Your task to perform on an android device: Open Chrome and go to the settings page Image 0: 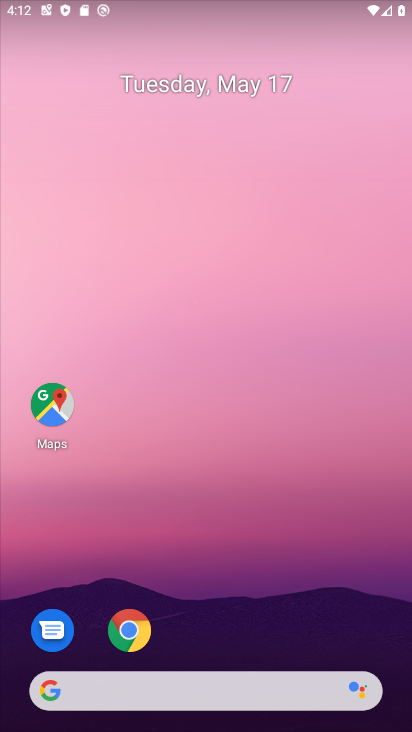
Step 0: click (131, 631)
Your task to perform on an android device: Open Chrome and go to the settings page Image 1: 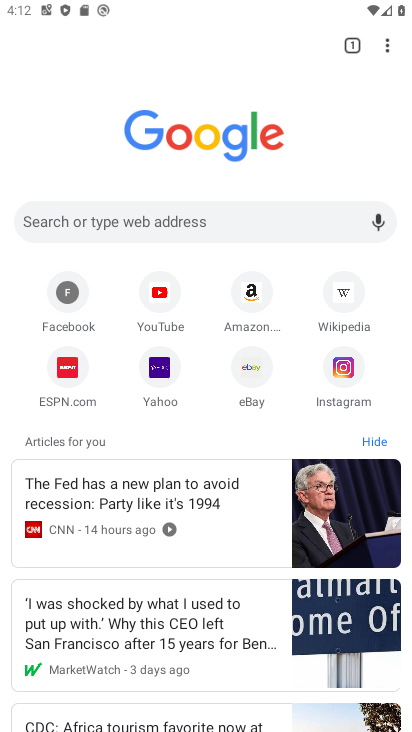
Step 1: click (389, 48)
Your task to perform on an android device: Open Chrome and go to the settings page Image 2: 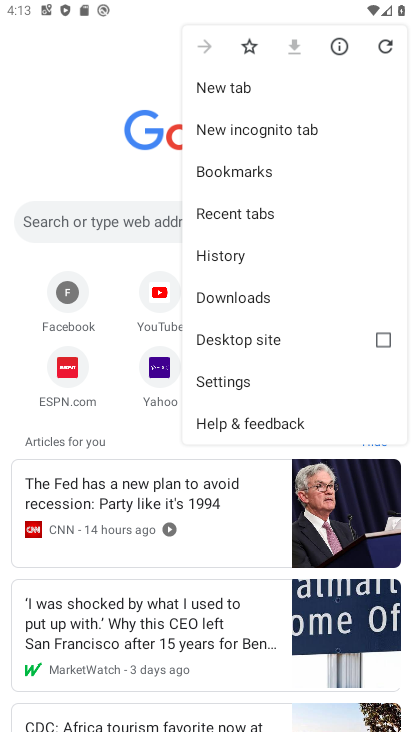
Step 2: click (225, 373)
Your task to perform on an android device: Open Chrome and go to the settings page Image 3: 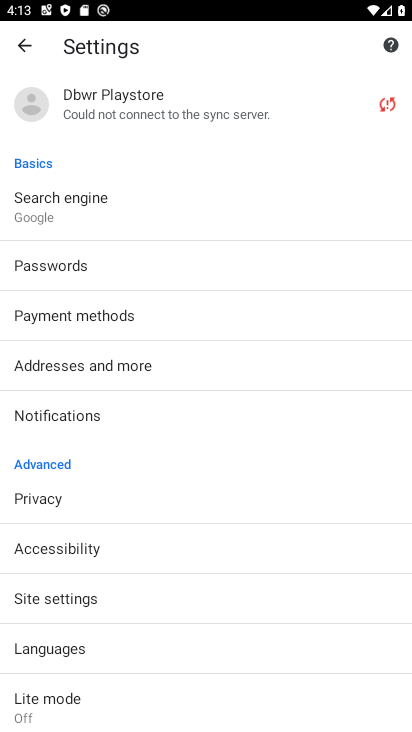
Step 3: task complete